Your task to perform on an android device: change alarm snooze length Image 0: 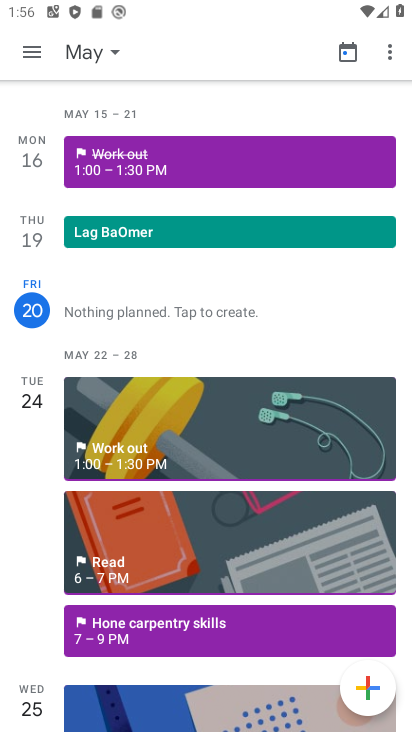
Step 0: press home button
Your task to perform on an android device: change alarm snooze length Image 1: 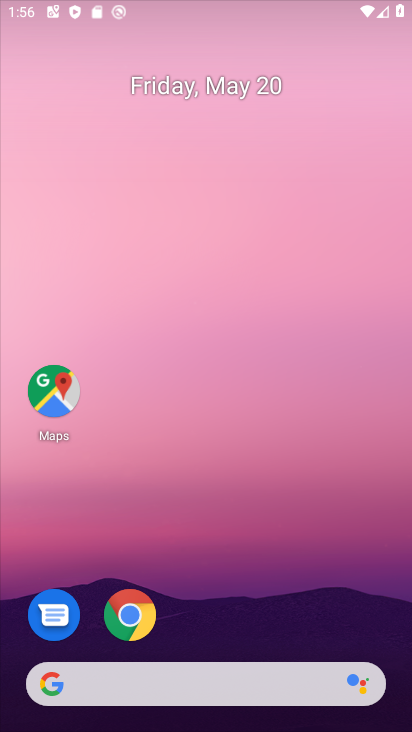
Step 1: drag from (216, 583) to (226, 303)
Your task to perform on an android device: change alarm snooze length Image 2: 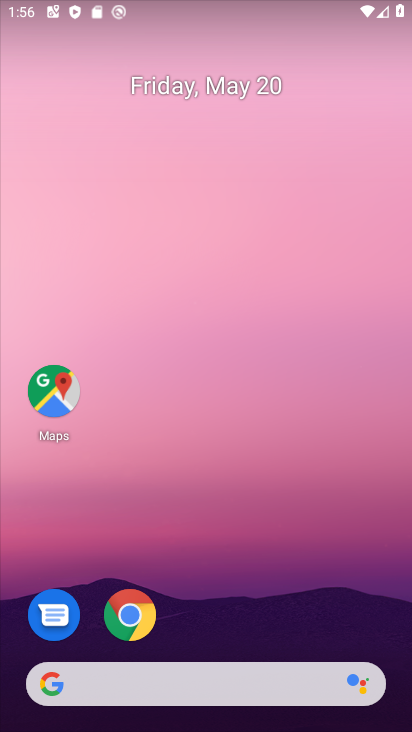
Step 2: drag from (259, 642) to (269, 384)
Your task to perform on an android device: change alarm snooze length Image 3: 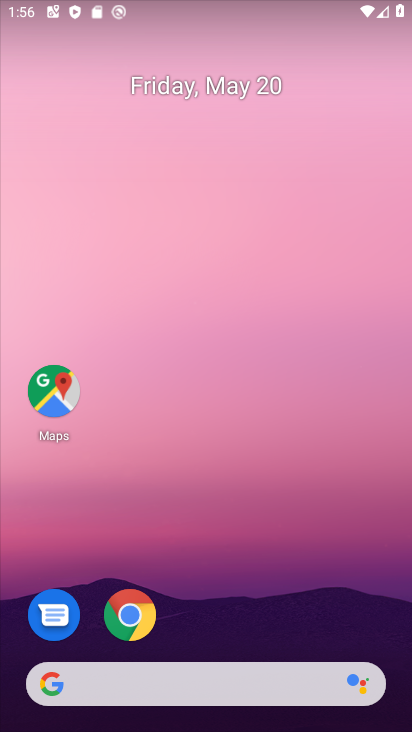
Step 3: drag from (254, 636) to (302, 313)
Your task to perform on an android device: change alarm snooze length Image 4: 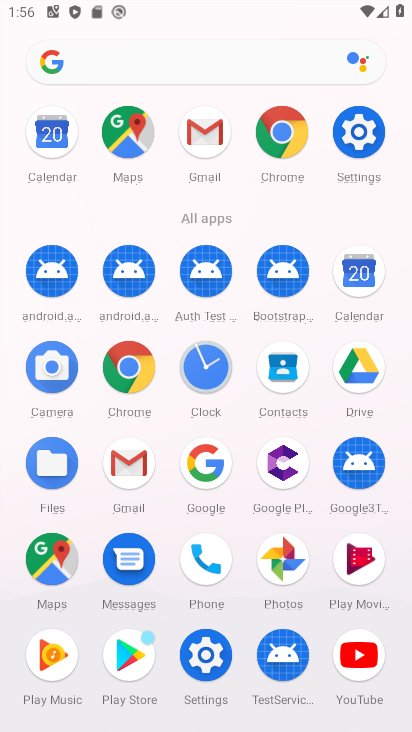
Step 4: click (203, 357)
Your task to perform on an android device: change alarm snooze length Image 5: 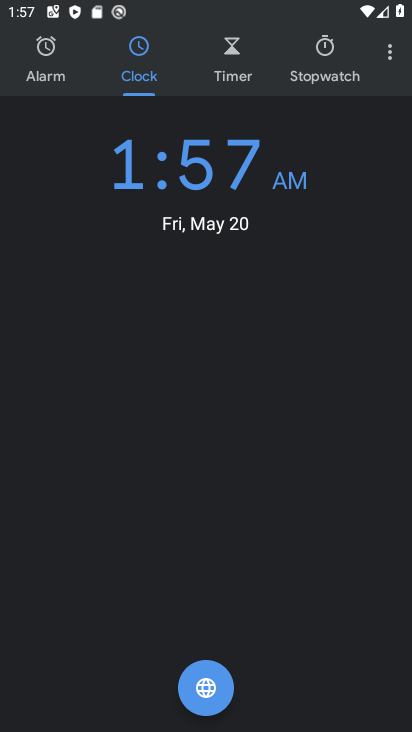
Step 5: click (398, 54)
Your task to perform on an android device: change alarm snooze length Image 6: 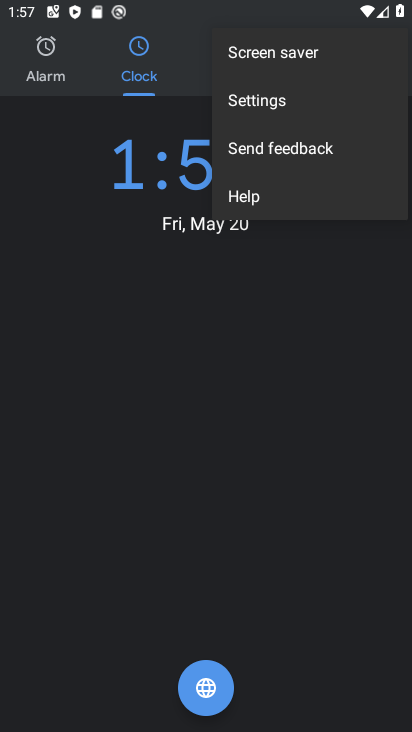
Step 6: click (293, 92)
Your task to perform on an android device: change alarm snooze length Image 7: 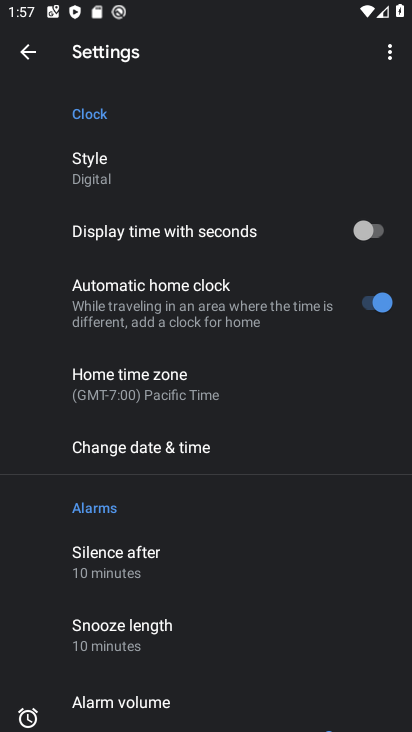
Step 7: click (141, 642)
Your task to perform on an android device: change alarm snooze length Image 8: 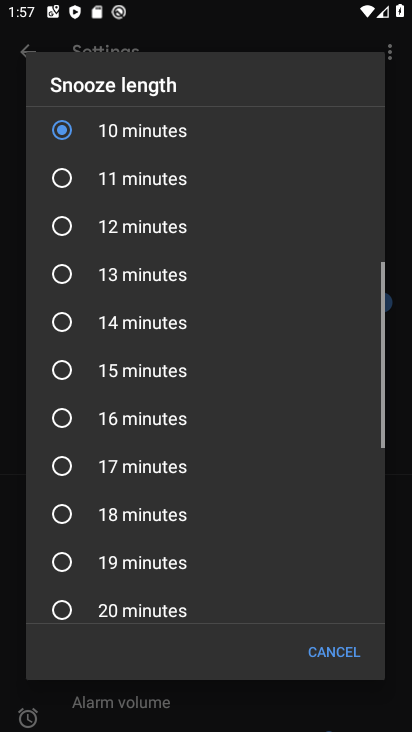
Step 8: drag from (186, 614) to (218, 288)
Your task to perform on an android device: change alarm snooze length Image 9: 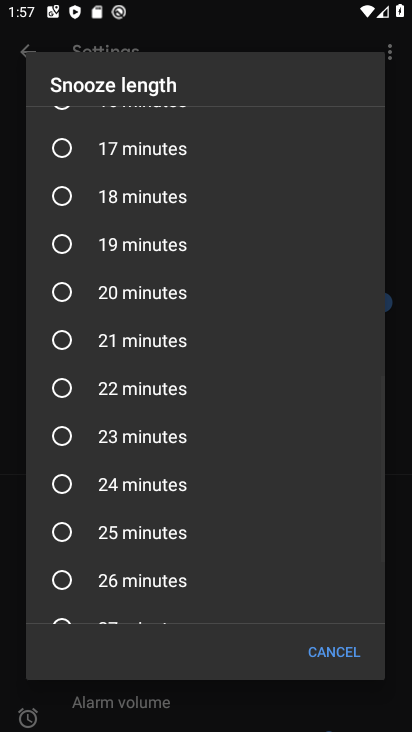
Step 9: click (93, 566)
Your task to perform on an android device: change alarm snooze length Image 10: 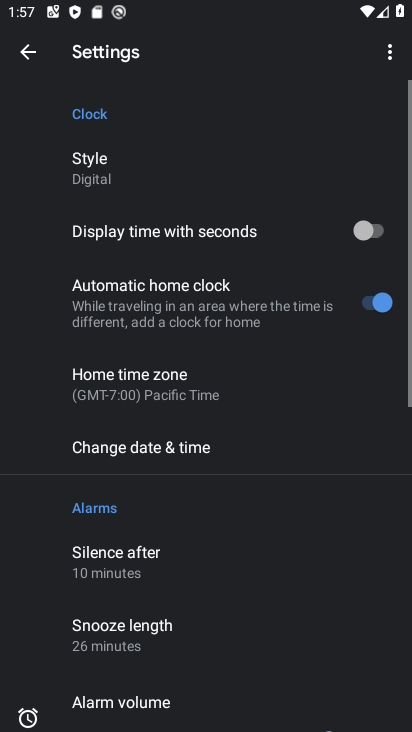
Step 10: task complete